Your task to perform on an android device: check battery use Image 0: 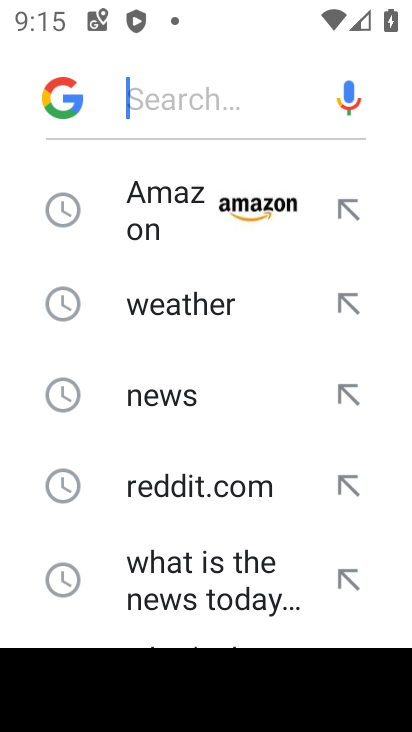
Step 0: press home button
Your task to perform on an android device: check battery use Image 1: 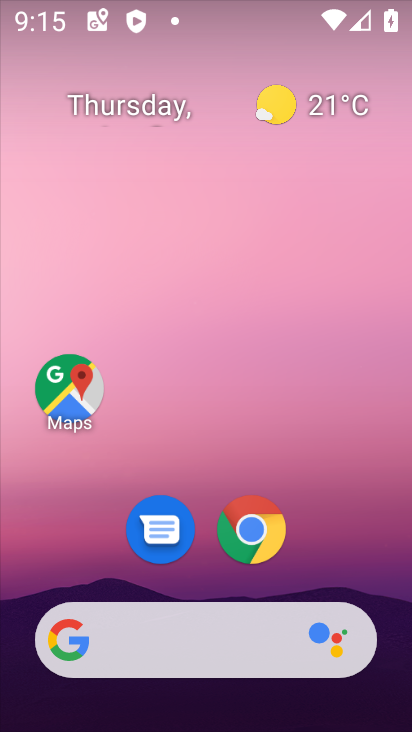
Step 1: drag from (274, 587) to (392, 12)
Your task to perform on an android device: check battery use Image 2: 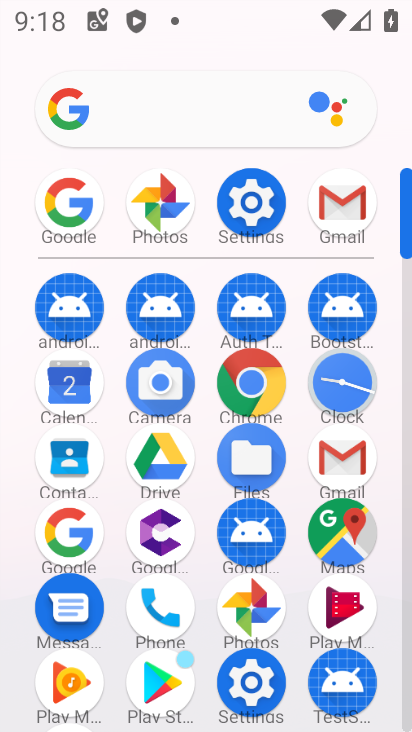
Step 2: click (245, 202)
Your task to perform on an android device: check battery use Image 3: 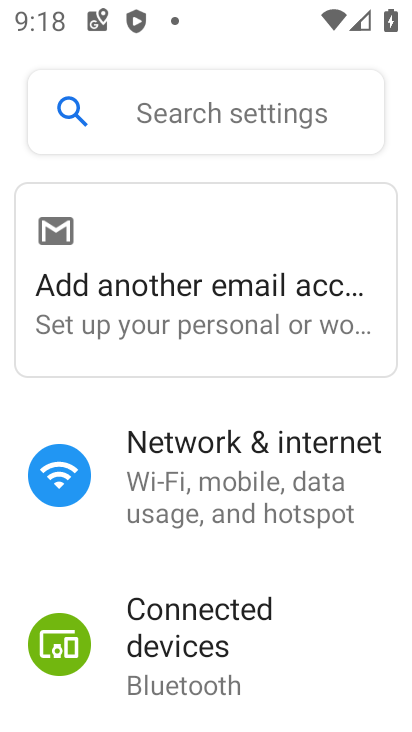
Step 3: drag from (216, 387) to (173, 45)
Your task to perform on an android device: check battery use Image 4: 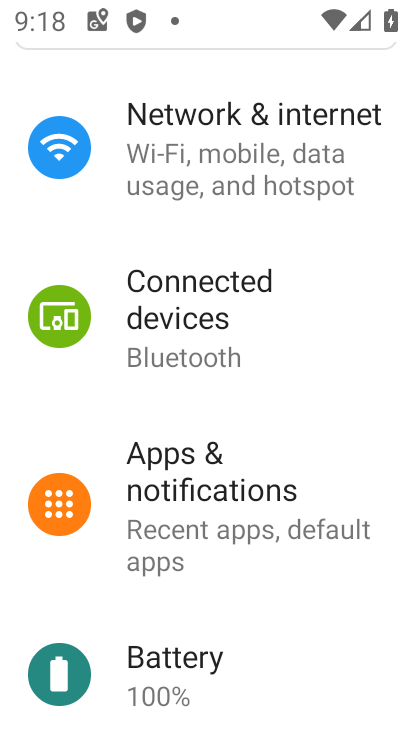
Step 4: click (204, 650)
Your task to perform on an android device: check battery use Image 5: 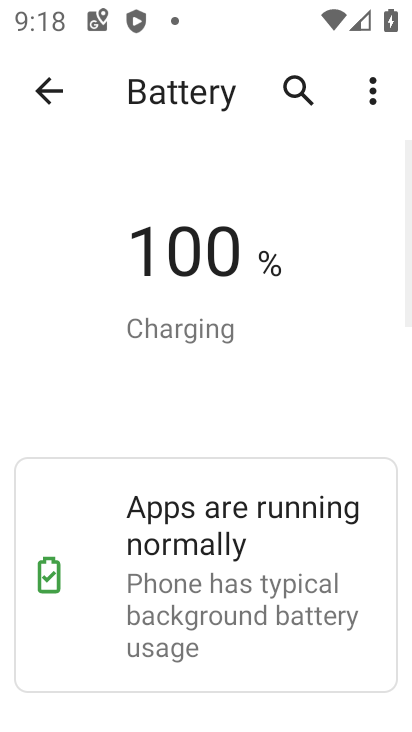
Step 5: click (370, 87)
Your task to perform on an android device: check battery use Image 6: 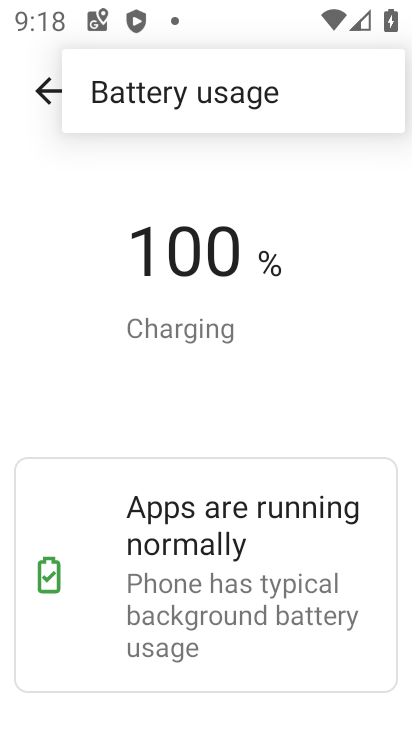
Step 6: click (225, 92)
Your task to perform on an android device: check battery use Image 7: 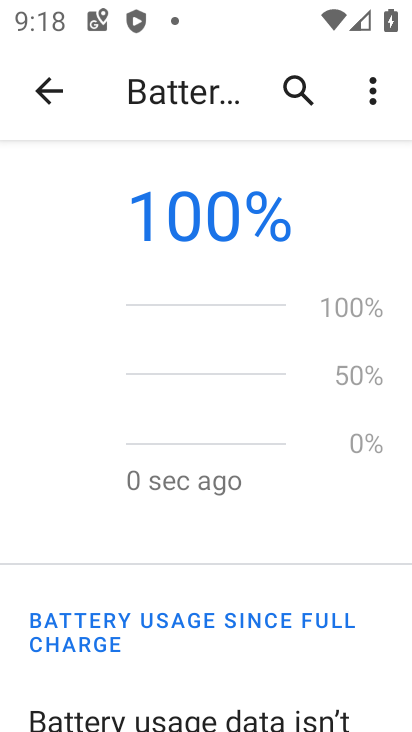
Step 7: task complete